Your task to perform on an android device: Open calendar and show me the third week of next month Image 0: 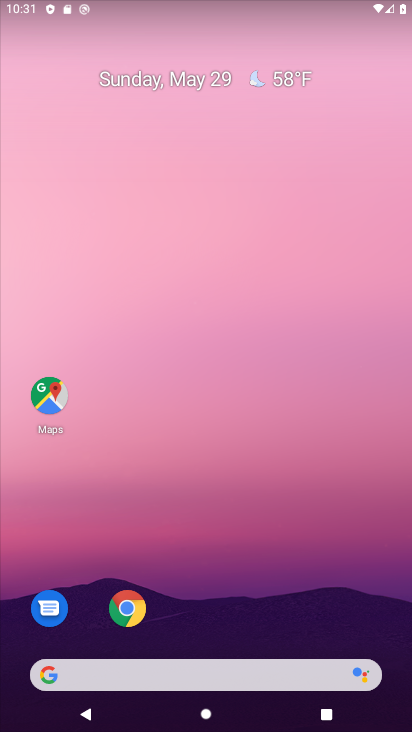
Step 0: click (241, 209)
Your task to perform on an android device: Open calendar and show me the third week of next month Image 1: 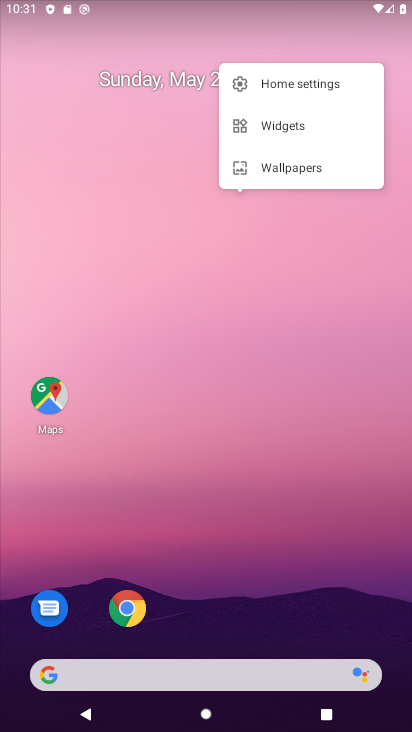
Step 1: drag from (192, 574) to (231, 148)
Your task to perform on an android device: Open calendar and show me the third week of next month Image 2: 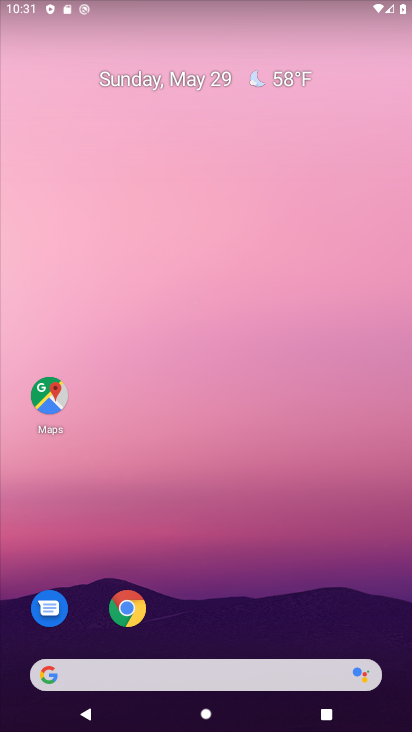
Step 2: drag from (214, 650) to (254, 262)
Your task to perform on an android device: Open calendar and show me the third week of next month Image 3: 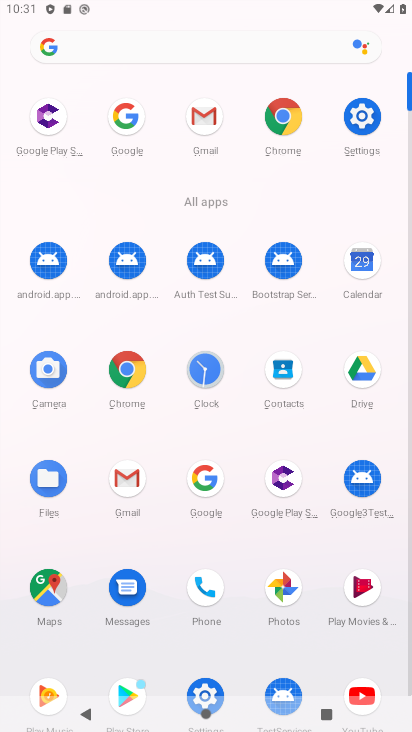
Step 3: click (355, 280)
Your task to perform on an android device: Open calendar and show me the third week of next month Image 4: 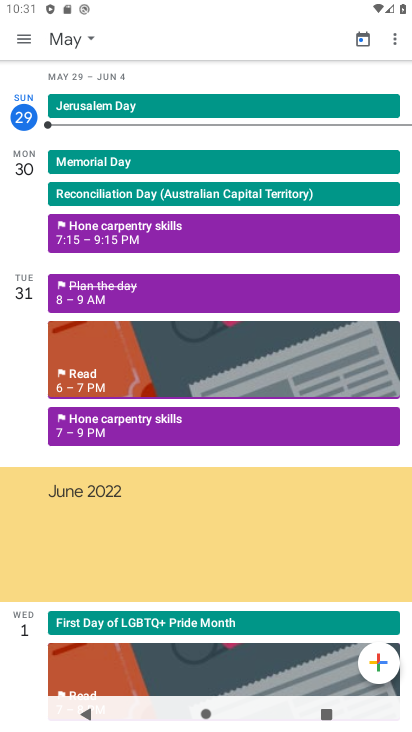
Step 4: click (77, 34)
Your task to perform on an android device: Open calendar and show me the third week of next month Image 5: 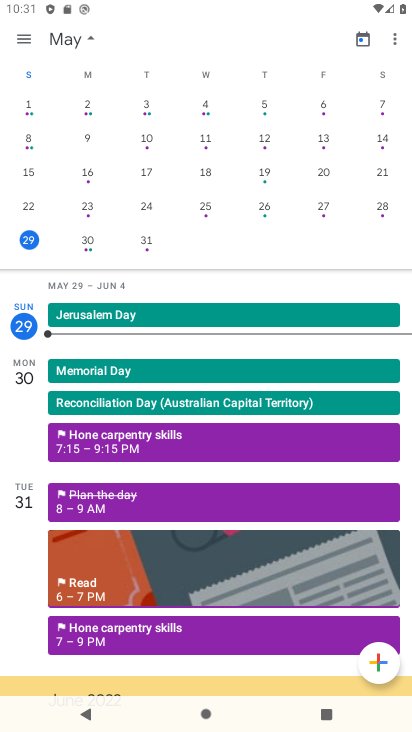
Step 5: drag from (387, 176) to (5, 216)
Your task to perform on an android device: Open calendar and show me the third week of next month Image 6: 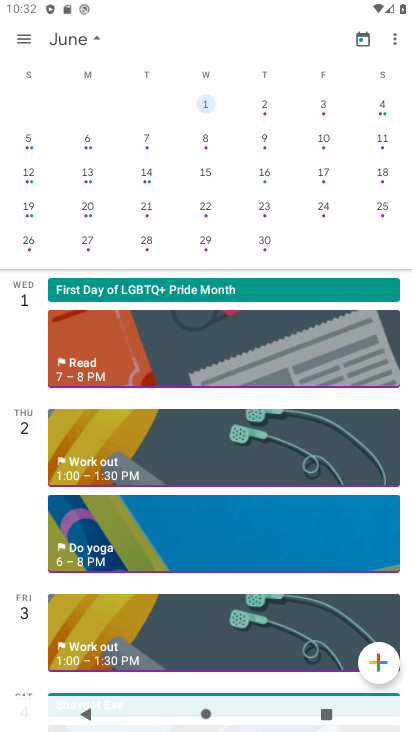
Step 6: click (37, 174)
Your task to perform on an android device: Open calendar and show me the third week of next month Image 7: 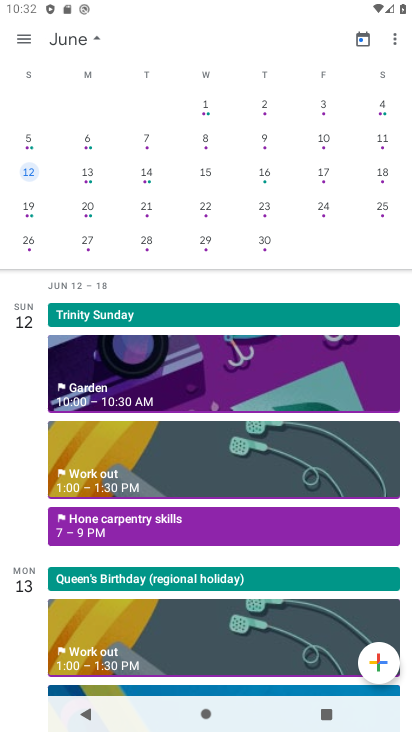
Step 7: task complete